Your task to perform on an android device: Find coffee shops on Maps Image 0: 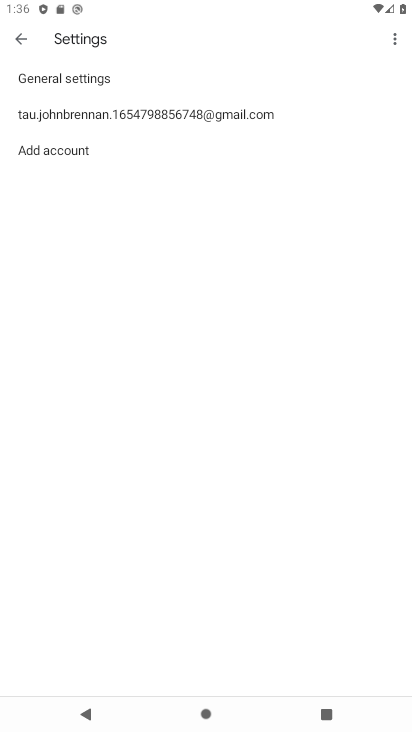
Step 0: press home button
Your task to perform on an android device: Find coffee shops on Maps Image 1: 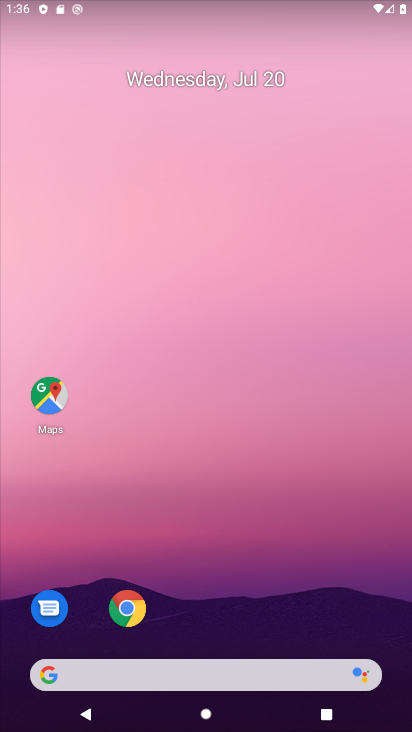
Step 1: click (61, 387)
Your task to perform on an android device: Find coffee shops on Maps Image 2: 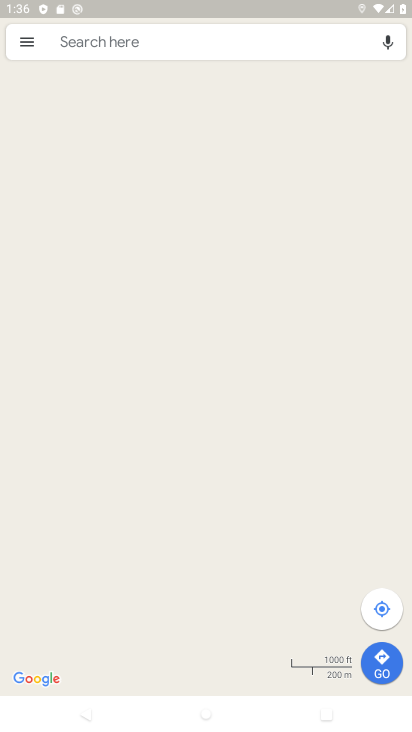
Step 2: click (109, 37)
Your task to perform on an android device: Find coffee shops on Maps Image 3: 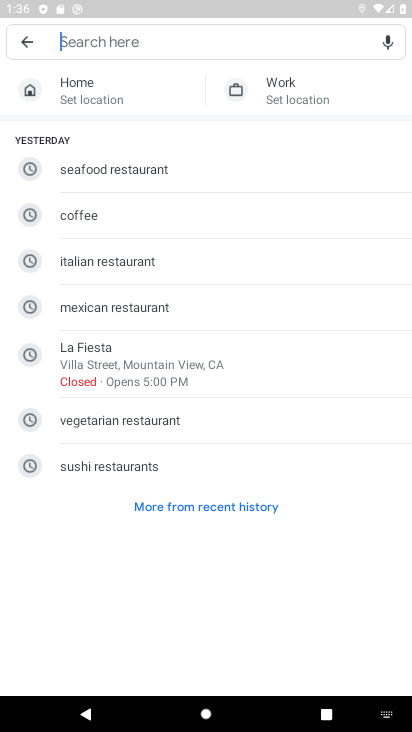
Step 3: type "Coffee"
Your task to perform on an android device: Find coffee shops on Maps Image 4: 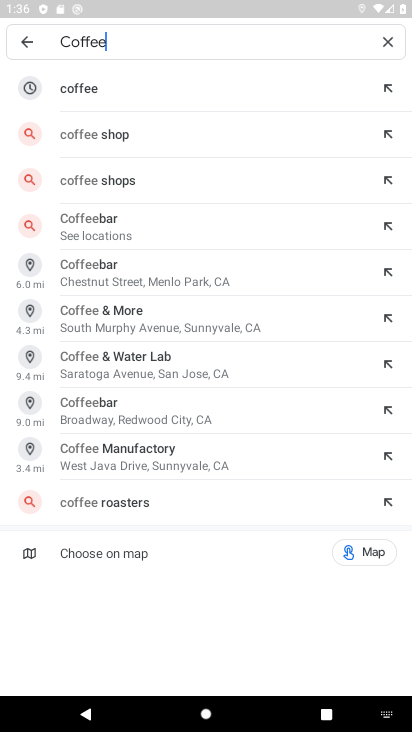
Step 4: type "  shops"
Your task to perform on an android device: Find coffee shops on Maps Image 5: 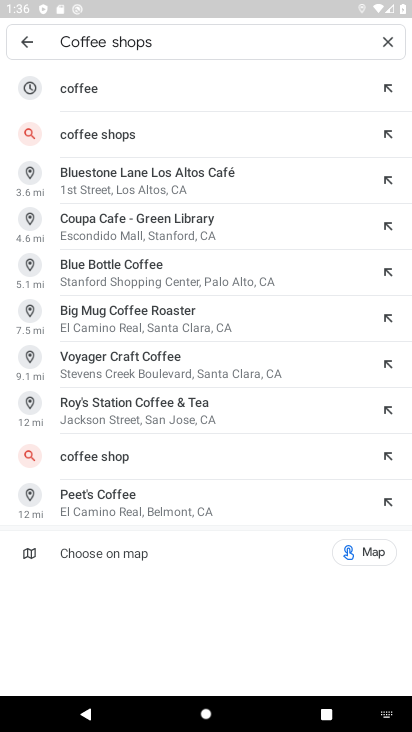
Step 5: click (223, 136)
Your task to perform on an android device: Find coffee shops on Maps Image 6: 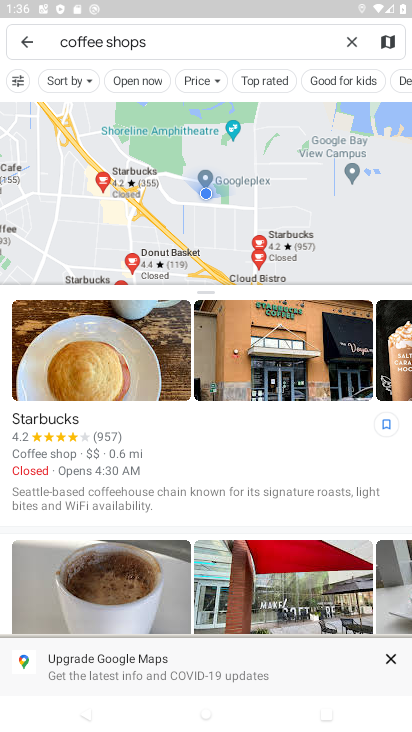
Step 6: task complete